Your task to perform on an android device: open a bookmark in the chrome app Image 0: 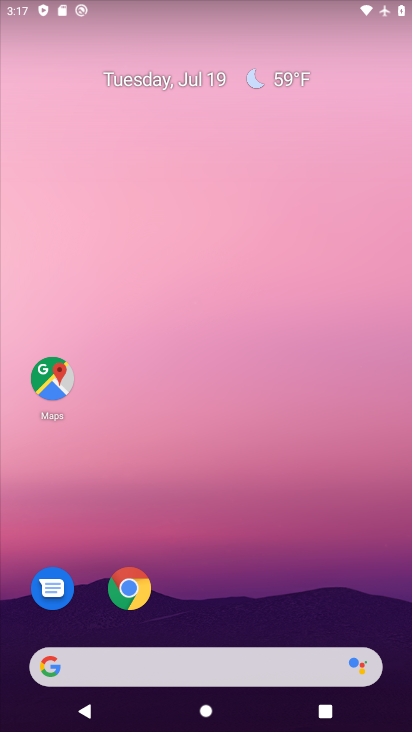
Step 0: press home button
Your task to perform on an android device: open a bookmark in the chrome app Image 1: 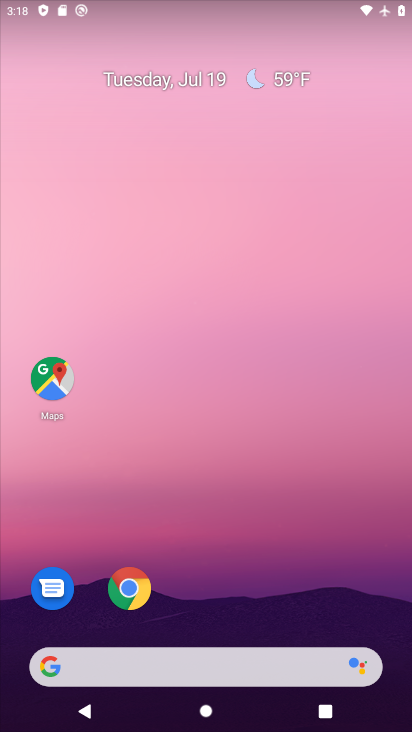
Step 1: drag from (322, 621) to (295, 84)
Your task to perform on an android device: open a bookmark in the chrome app Image 2: 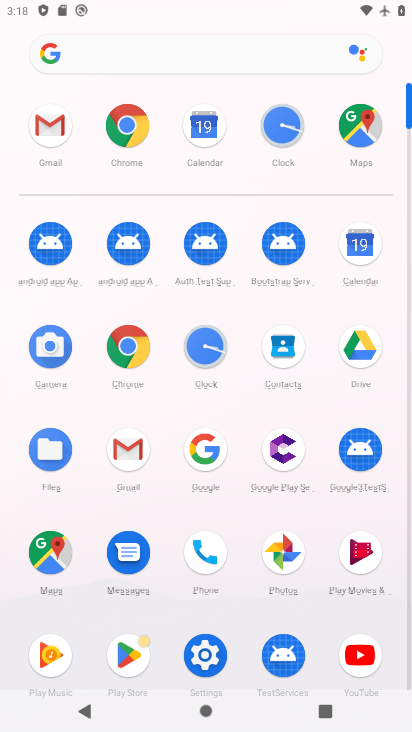
Step 2: click (132, 125)
Your task to perform on an android device: open a bookmark in the chrome app Image 3: 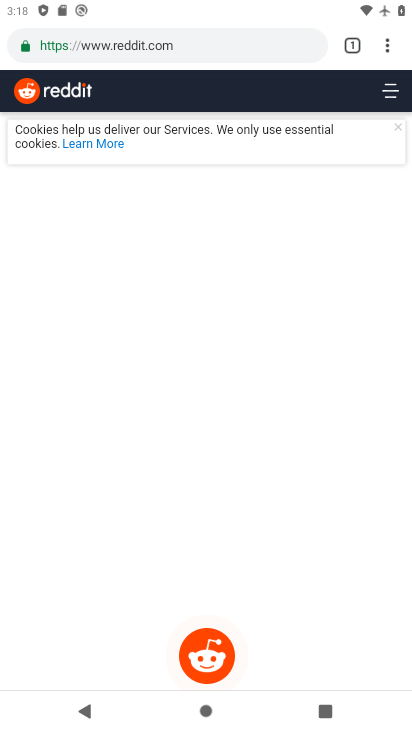
Step 3: drag from (390, 42) to (222, 174)
Your task to perform on an android device: open a bookmark in the chrome app Image 4: 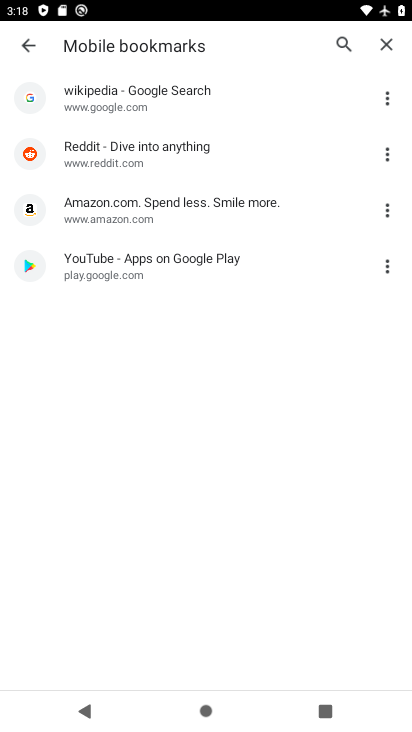
Step 4: click (163, 213)
Your task to perform on an android device: open a bookmark in the chrome app Image 5: 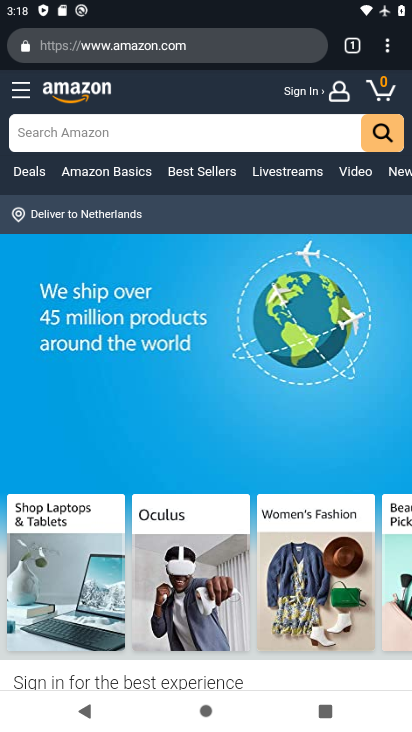
Step 5: task complete